Your task to perform on an android device: Show me popular videos on Youtube Image 0: 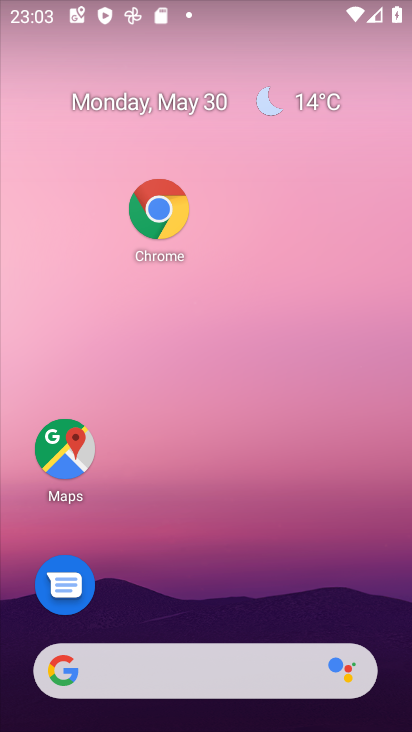
Step 0: drag from (207, 596) to (244, 204)
Your task to perform on an android device: Show me popular videos on Youtube Image 1: 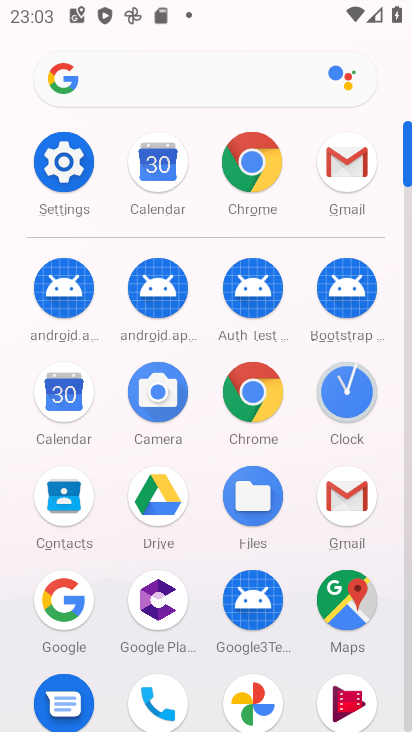
Step 1: drag from (210, 657) to (205, 173)
Your task to perform on an android device: Show me popular videos on Youtube Image 2: 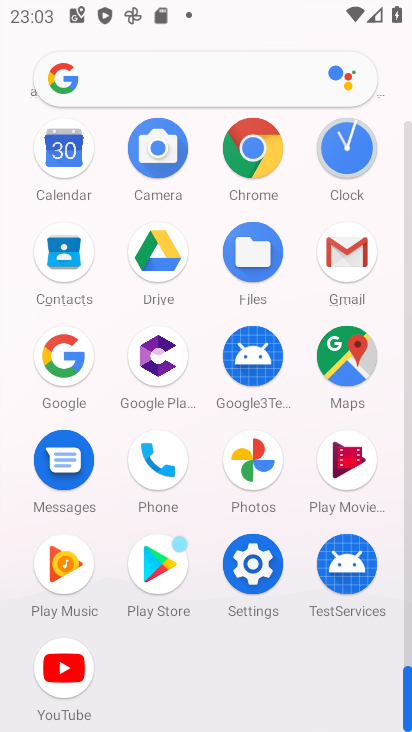
Step 2: click (67, 669)
Your task to perform on an android device: Show me popular videos on Youtube Image 3: 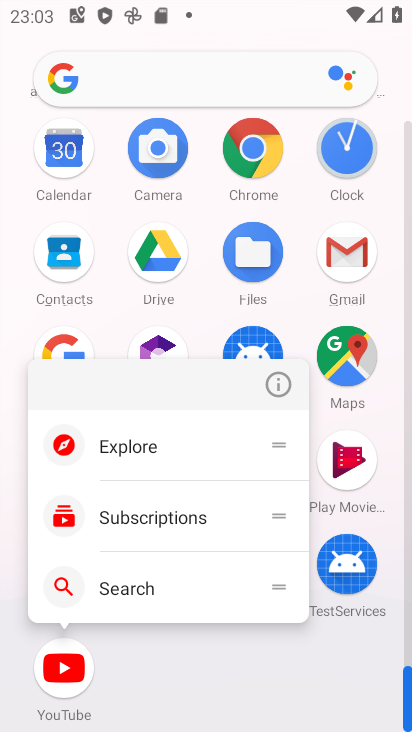
Step 3: click (284, 380)
Your task to perform on an android device: Show me popular videos on Youtube Image 4: 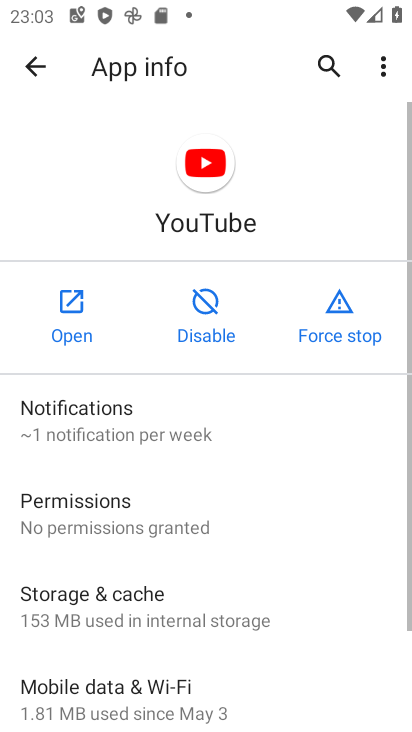
Step 4: click (73, 296)
Your task to perform on an android device: Show me popular videos on Youtube Image 5: 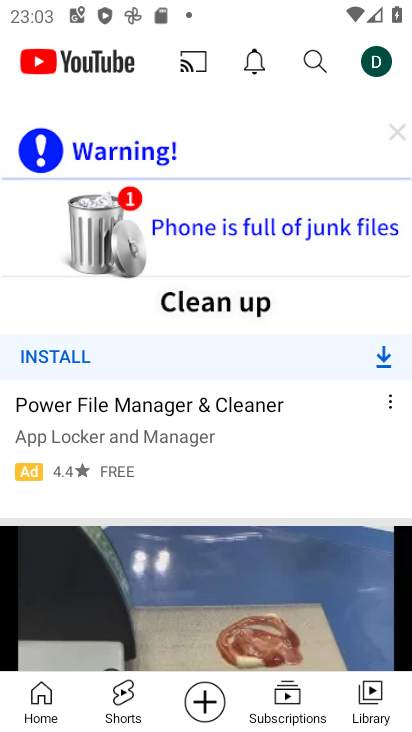
Step 5: task complete